Your task to perform on an android device: Go to eBay Image 0: 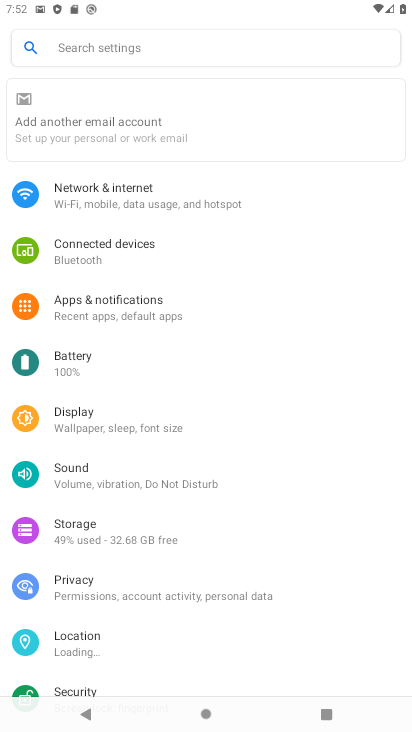
Step 0: press home button
Your task to perform on an android device: Go to eBay Image 1: 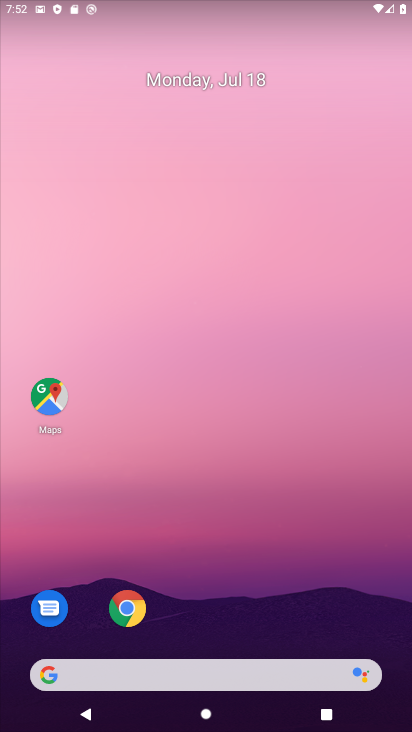
Step 1: click (123, 607)
Your task to perform on an android device: Go to eBay Image 2: 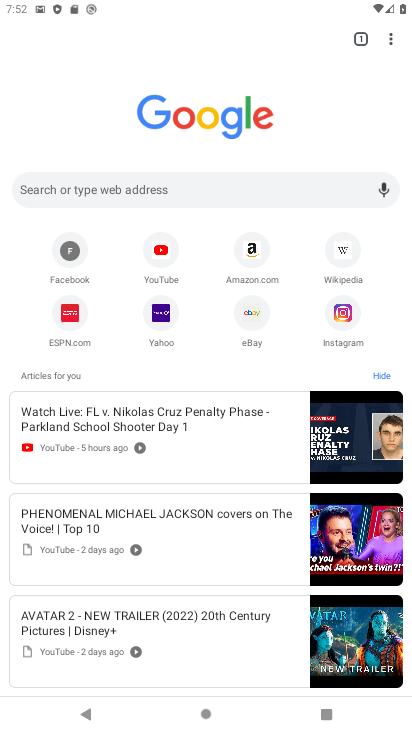
Step 2: click (246, 313)
Your task to perform on an android device: Go to eBay Image 3: 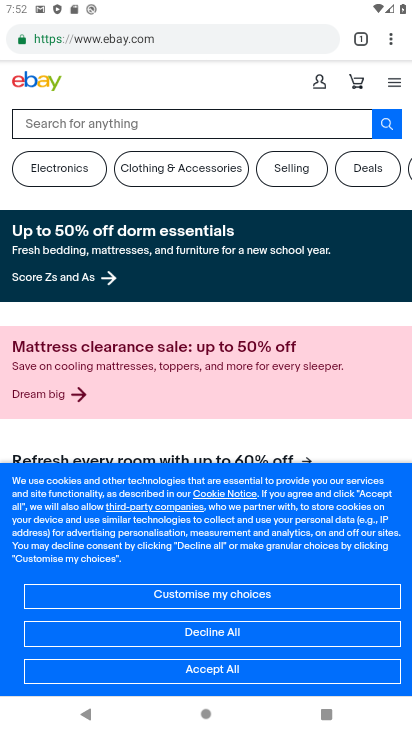
Step 3: task complete